Your task to perform on an android device: Search for sushi restaurants on Maps Image 0: 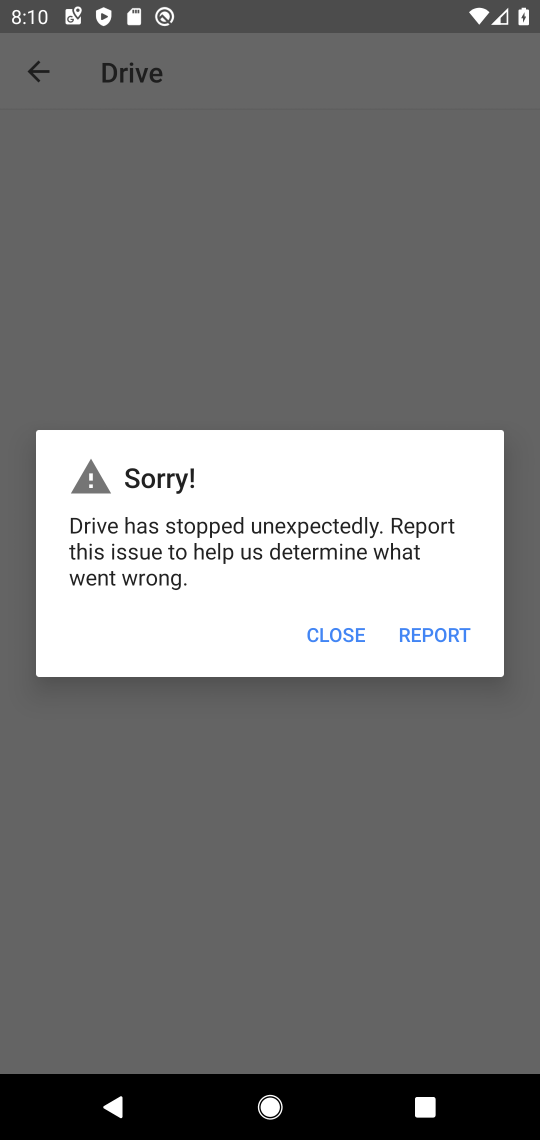
Step 0: press home button
Your task to perform on an android device: Search for sushi restaurants on Maps Image 1: 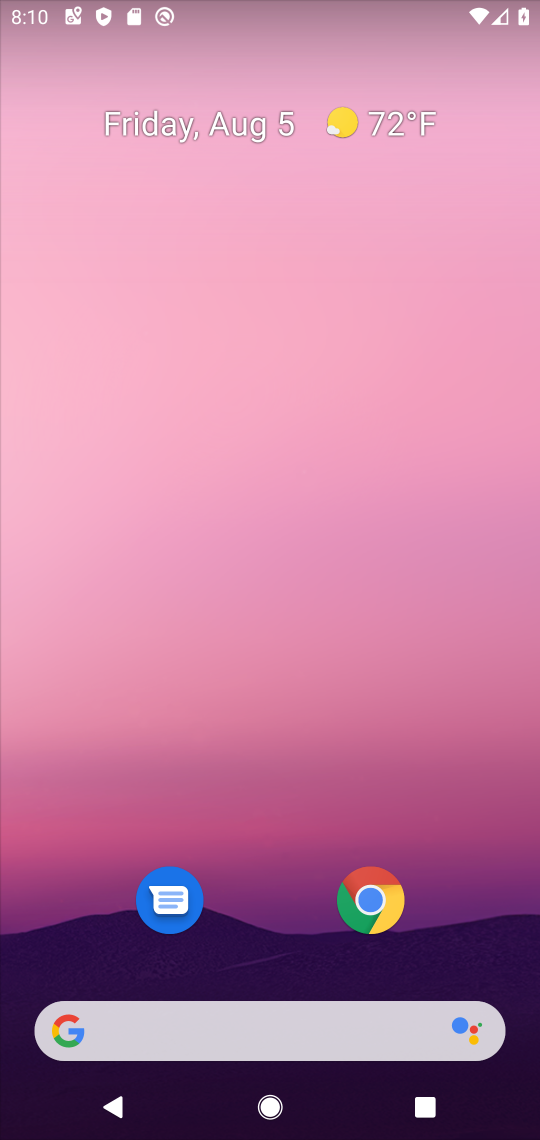
Step 1: drag from (262, 994) to (262, 224)
Your task to perform on an android device: Search for sushi restaurants on Maps Image 2: 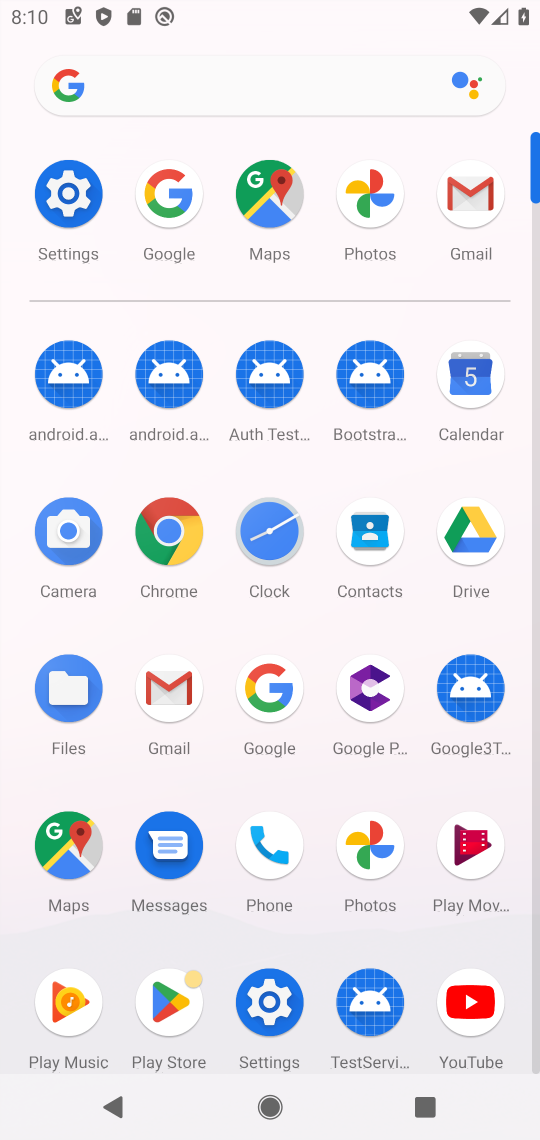
Step 2: click (285, 264)
Your task to perform on an android device: Search for sushi restaurants on Maps Image 3: 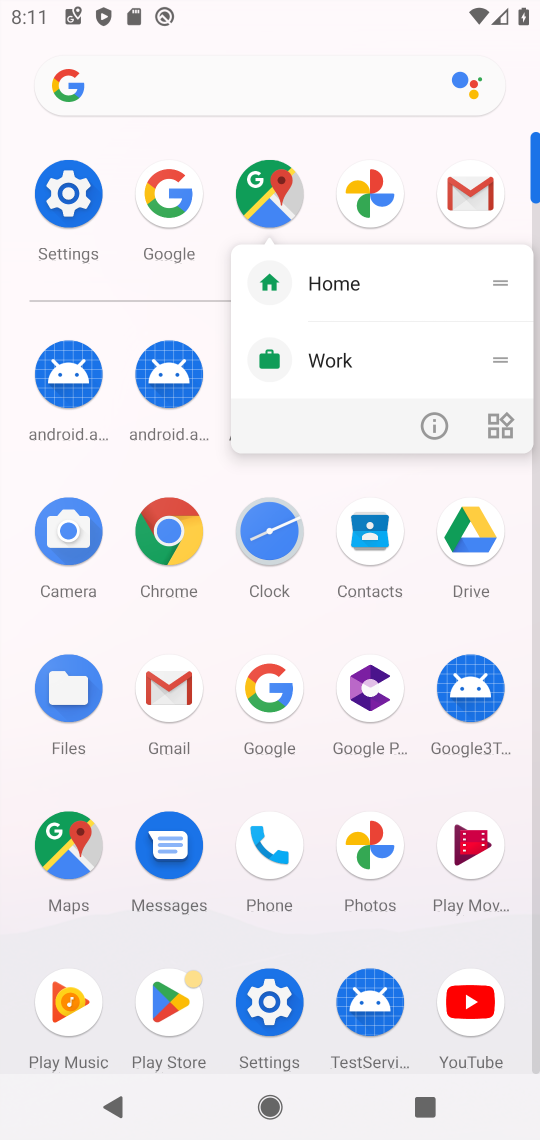
Step 3: click (279, 175)
Your task to perform on an android device: Search for sushi restaurants on Maps Image 4: 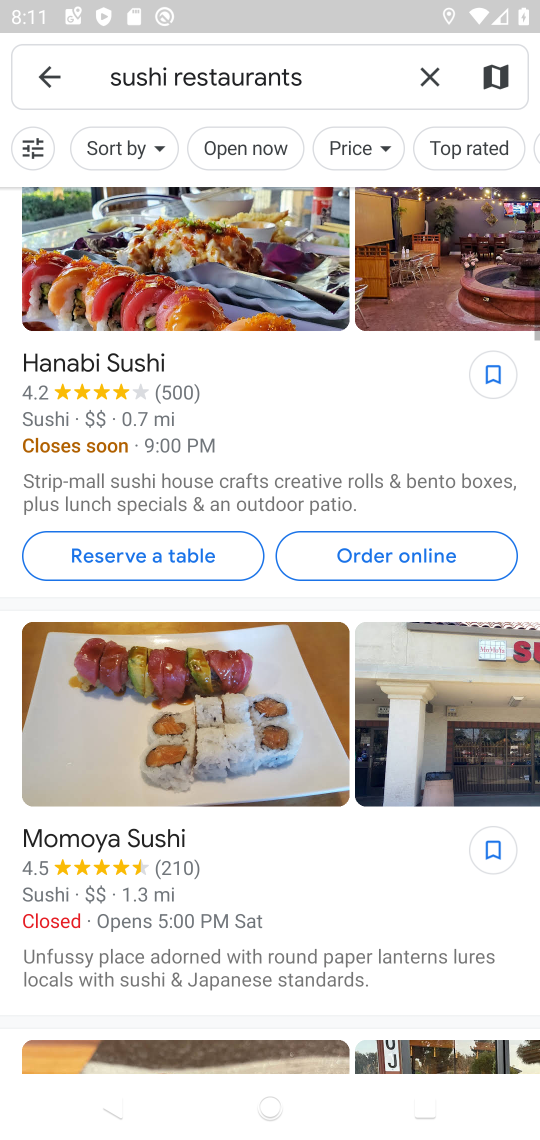
Step 4: task complete